Your task to perform on an android device: choose inbox layout in the gmail app Image 0: 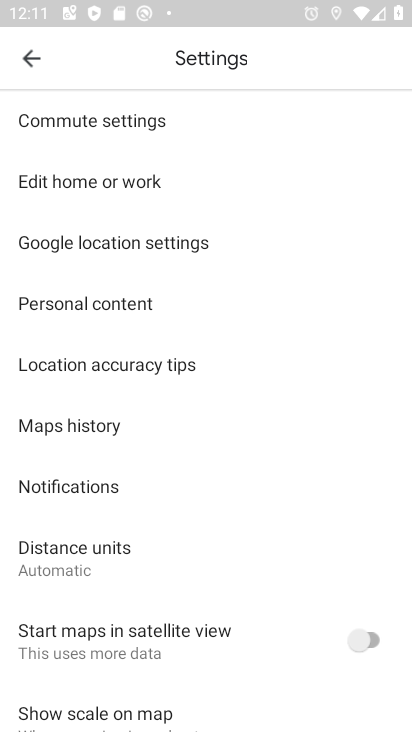
Step 0: press home button
Your task to perform on an android device: choose inbox layout in the gmail app Image 1: 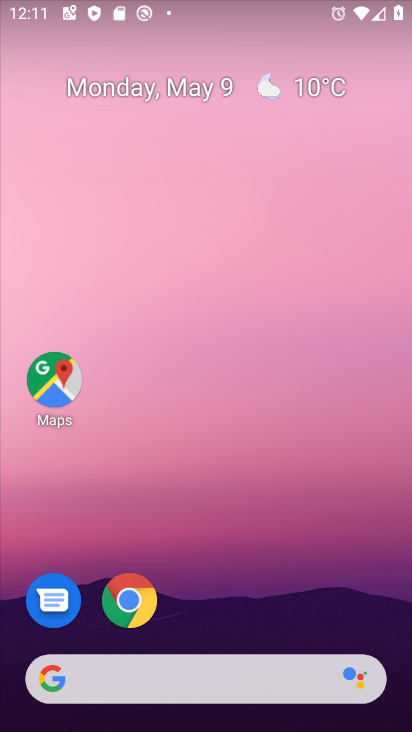
Step 1: drag from (187, 556) to (236, 235)
Your task to perform on an android device: choose inbox layout in the gmail app Image 2: 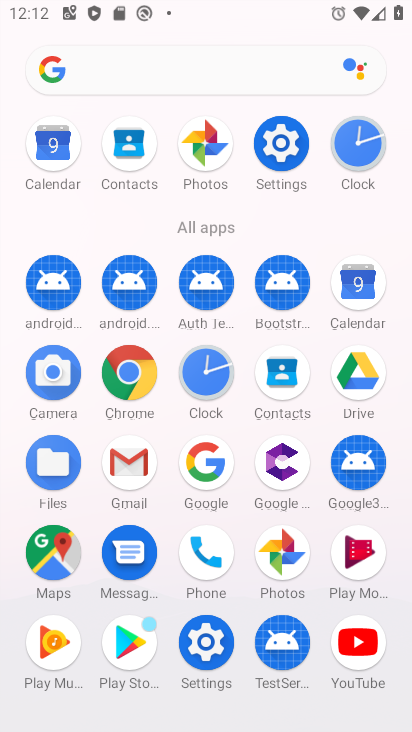
Step 2: click (125, 461)
Your task to perform on an android device: choose inbox layout in the gmail app Image 3: 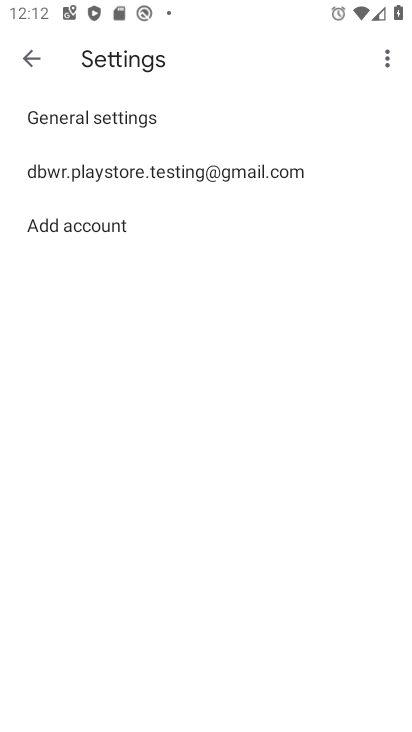
Step 3: click (155, 181)
Your task to perform on an android device: choose inbox layout in the gmail app Image 4: 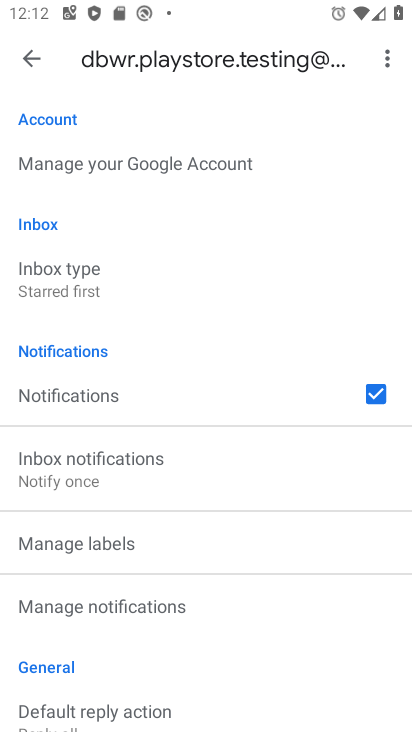
Step 4: click (91, 284)
Your task to perform on an android device: choose inbox layout in the gmail app Image 5: 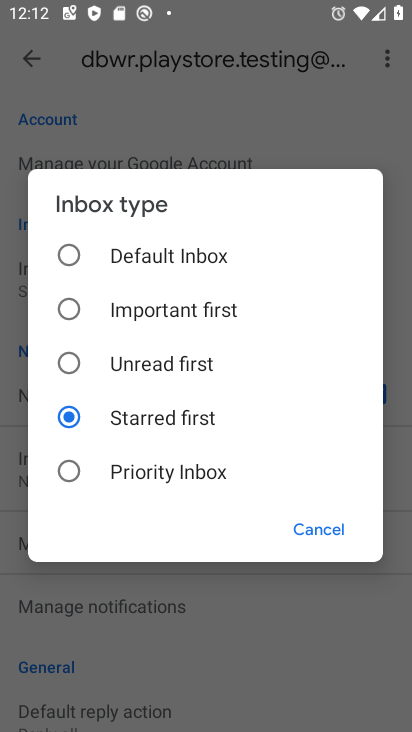
Step 5: click (70, 478)
Your task to perform on an android device: choose inbox layout in the gmail app Image 6: 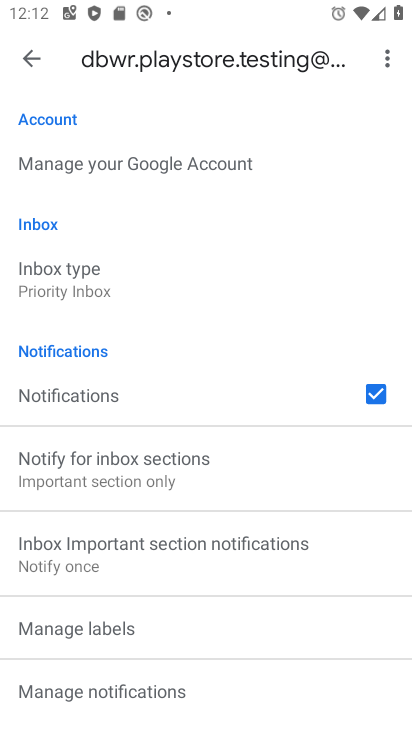
Step 6: task complete